Your task to perform on an android device: Open eBay Image 0: 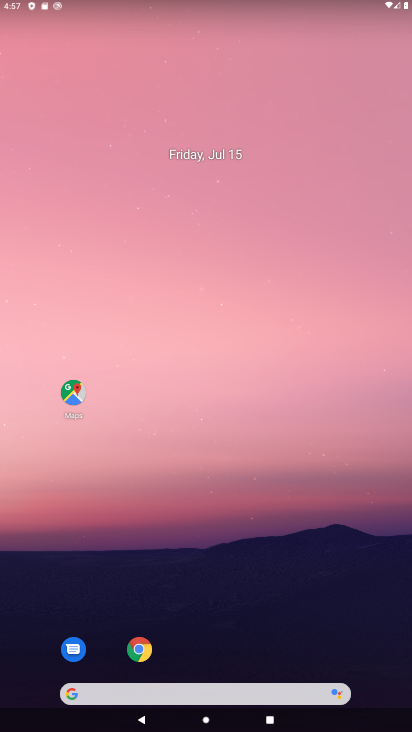
Step 0: click (139, 650)
Your task to perform on an android device: Open eBay Image 1: 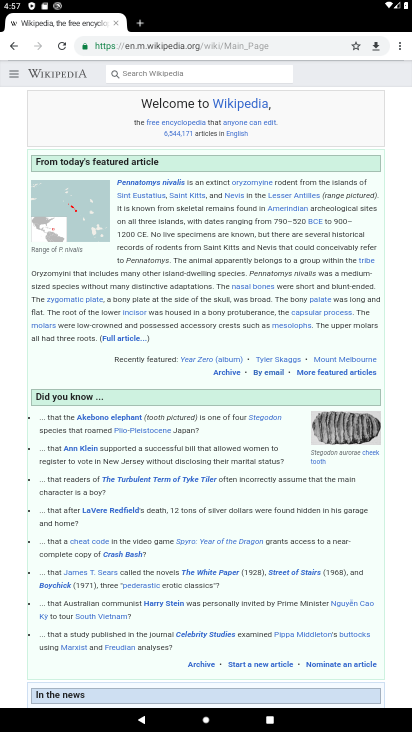
Step 1: click (286, 48)
Your task to perform on an android device: Open eBay Image 2: 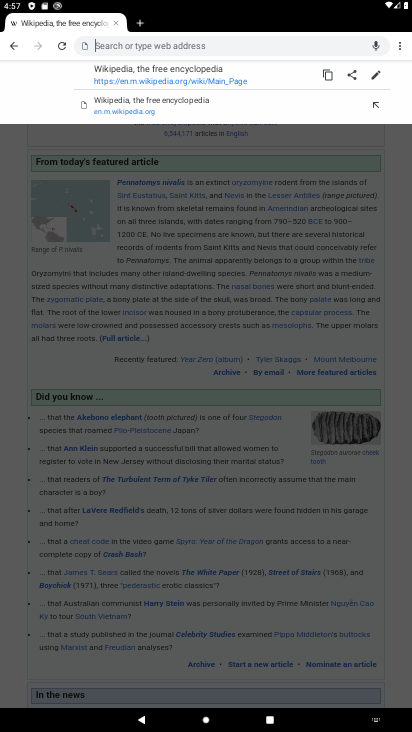
Step 2: type "eBay"
Your task to perform on an android device: Open eBay Image 3: 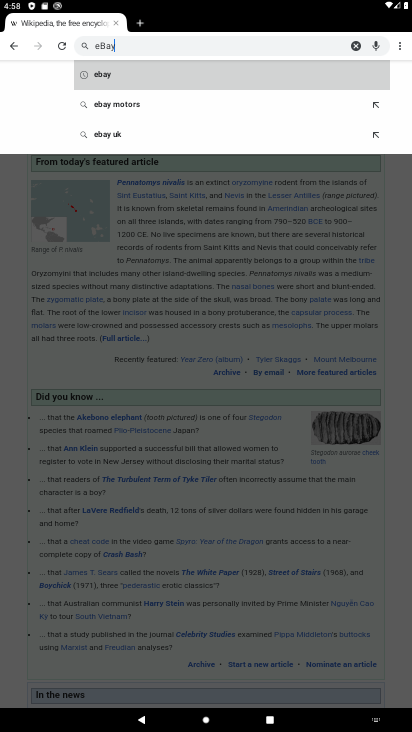
Step 3: click (120, 81)
Your task to perform on an android device: Open eBay Image 4: 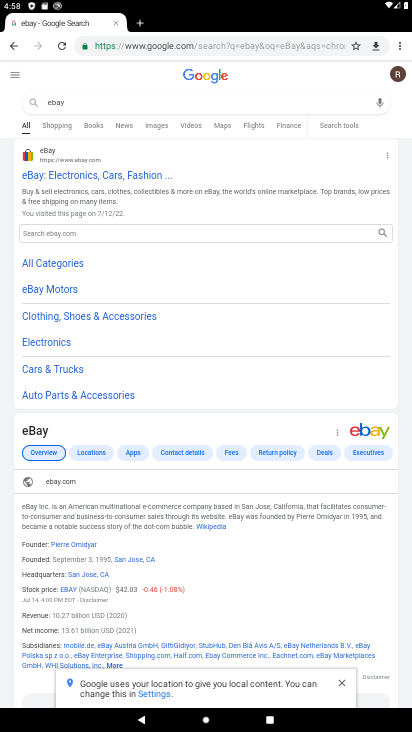
Step 4: click (101, 178)
Your task to perform on an android device: Open eBay Image 5: 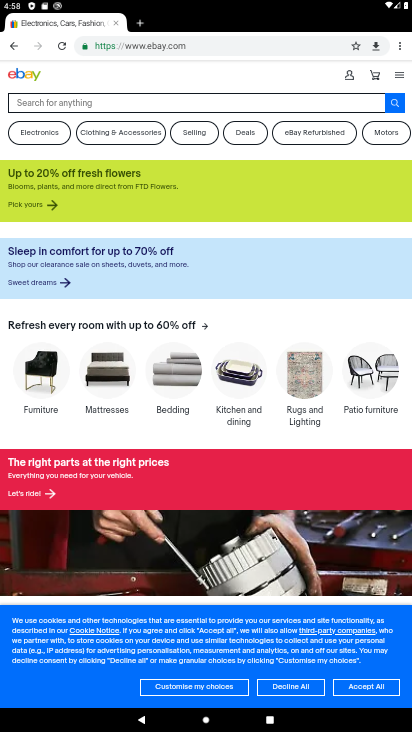
Step 5: task complete